Your task to perform on an android device: turn off location history Image 0: 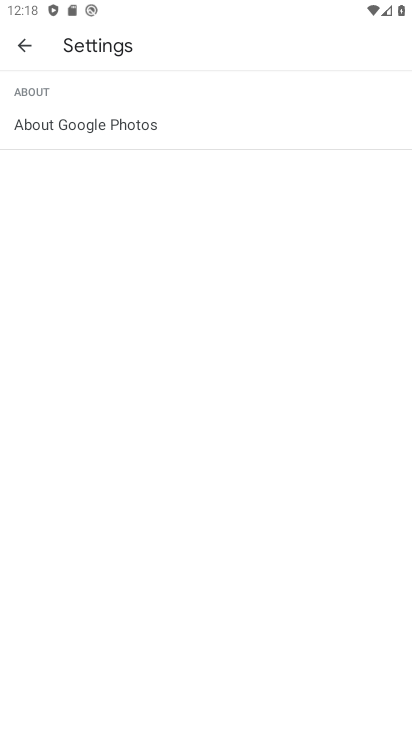
Step 0: press home button
Your task to perform on an android device: turn off location history Image 1: 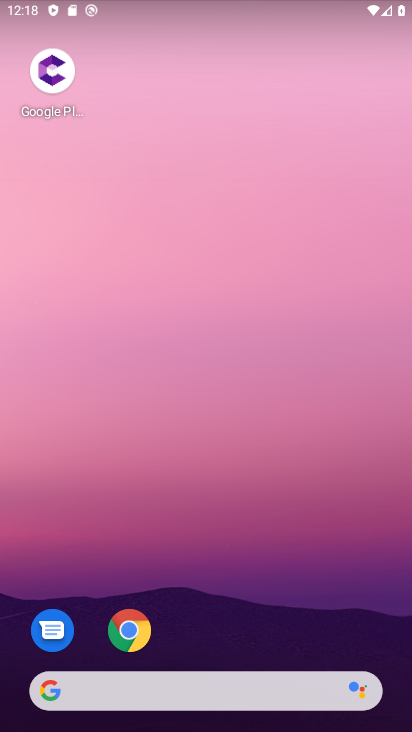
Step 1: drag from (271, 673) to (236, 137)
Your task to perform on an android device: turn off location history Image 2: 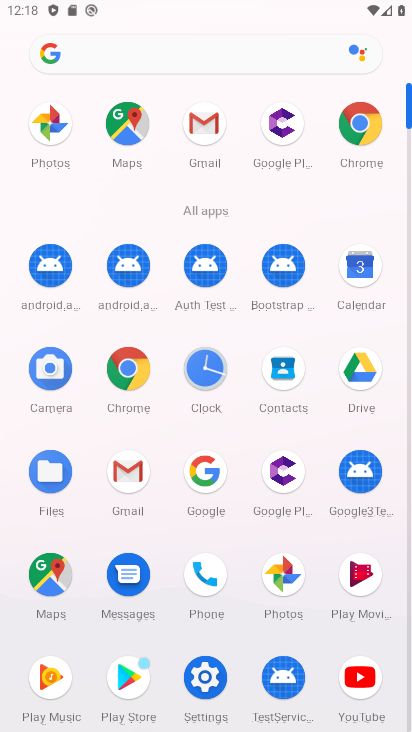
Step 2: click (213, 672)
Your task to perform on an android device: turn off location history Image 3: 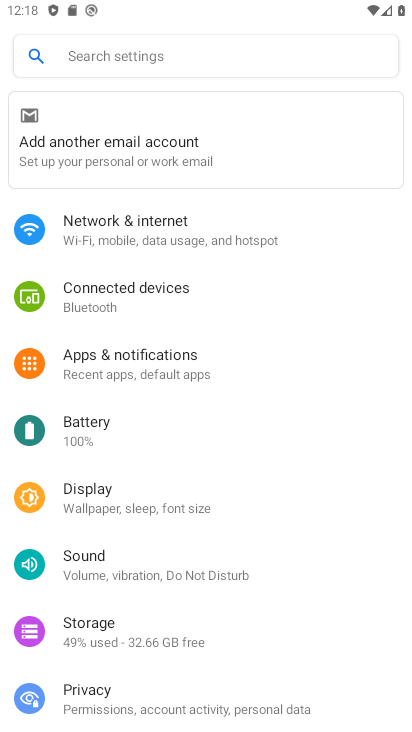
Step 3: click (184, 52)
Your task to perform on an android device: turn off location history Image 4: 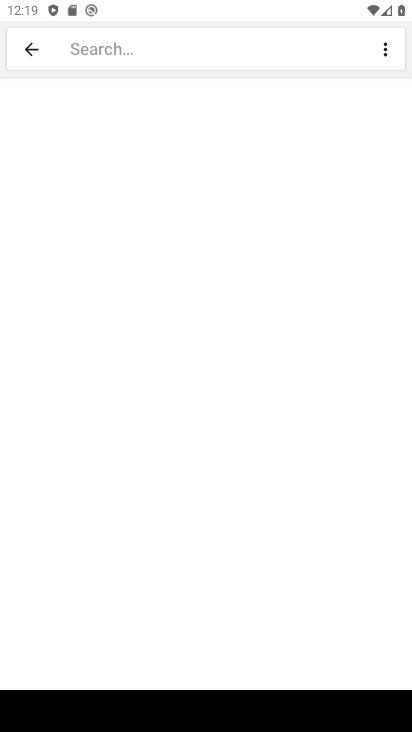
Step 4: drag from (387, 726) to (346, 659)
Your task to perform on an android device: turn off location history Image 5: 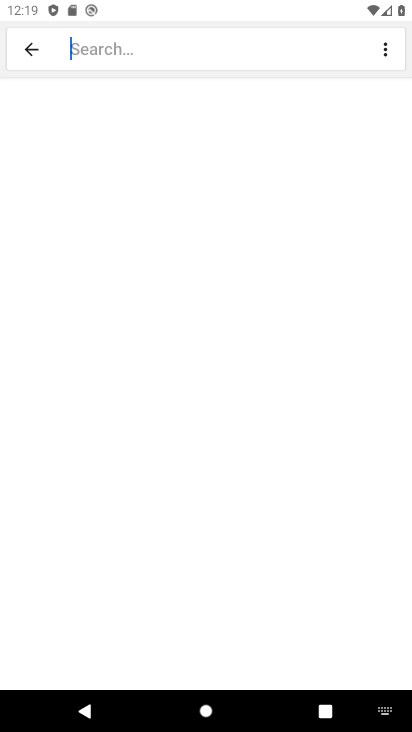
Step 5: click (395, 717)
Your task to perform on an android device: turn off location history Image 6: 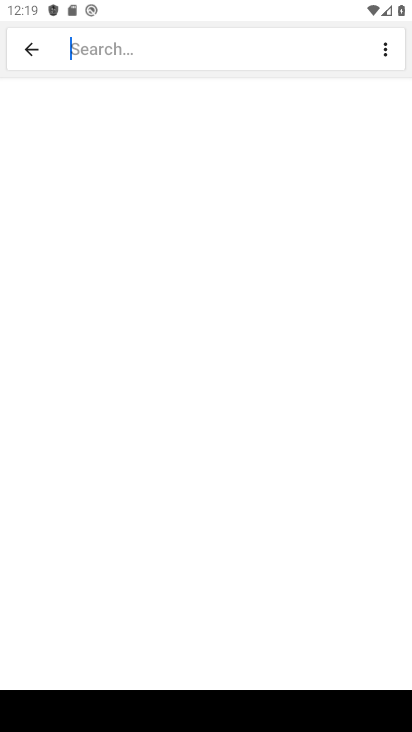
Step 6: drag from (393, 706) to (348, 550)
Your task to perform on an android device: turn off location history Image 7: 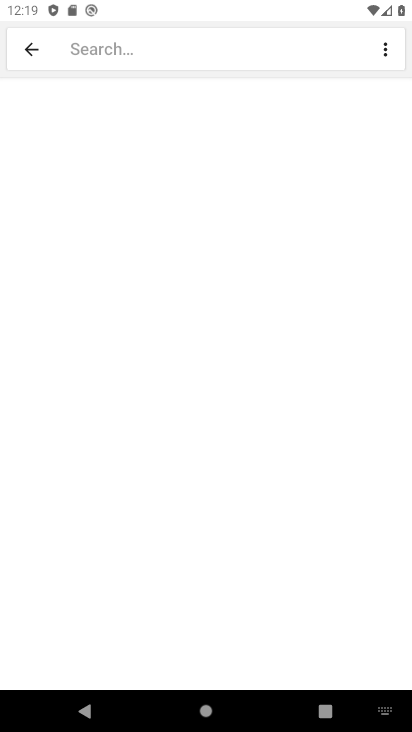
Step 7: click (393, 720)
Your task to perform on an android device: turn off location history Image 8: 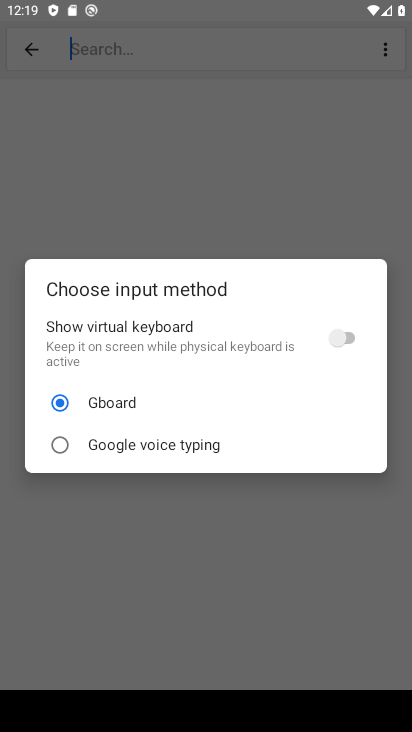
Step 8: click (338, 341)
Your task to perform on an android device: turn off location history Image 9: 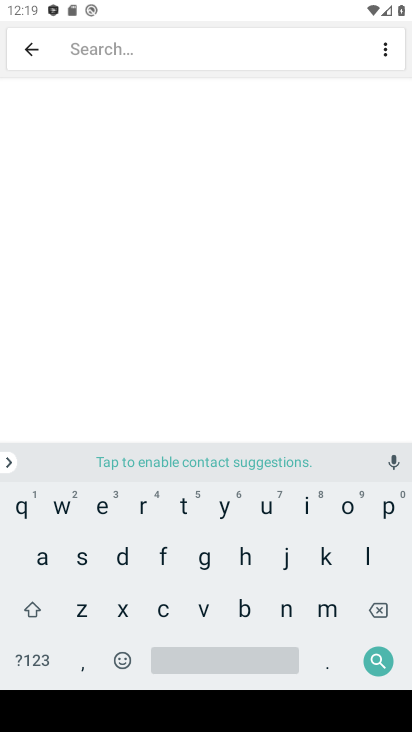
Step 9: click (360, 552)
Your task to perform on an android device: turn off location history Image 10: 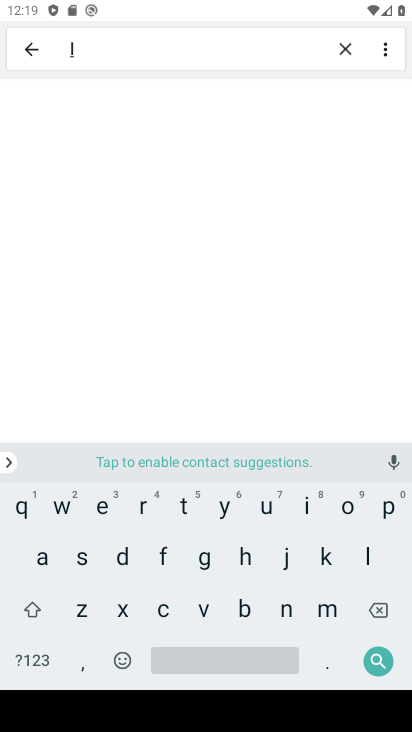
Step 10: click (345, 509)
Your task to perform on an android device: turn off location history Image 11: 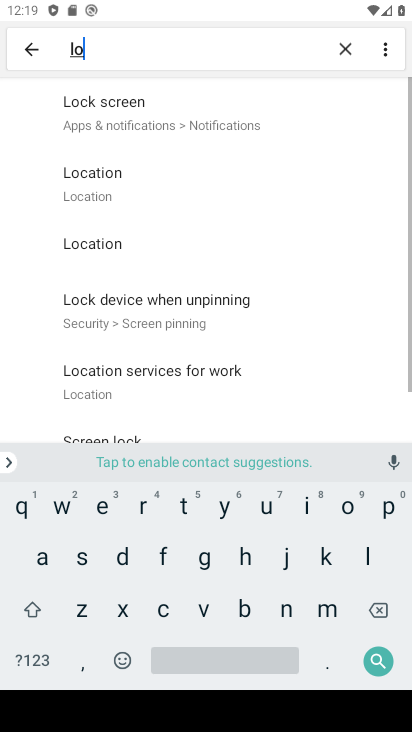
Step 11: click (139, 191)
Your task to perform on an android device: turn off location history Image 12: 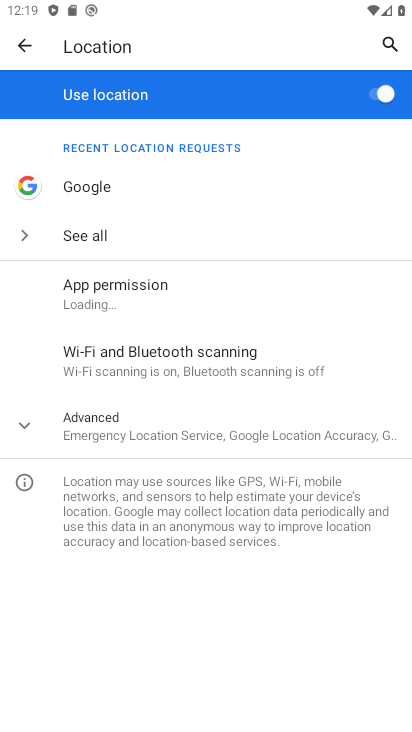
Step 12: click (357, 96)
Your task to perform on an android device: turn off location history Image 13: 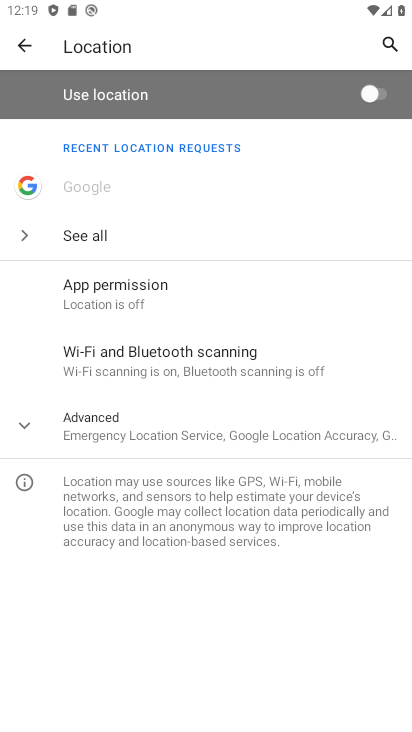
Step 13: click (364, 99)
Your task to perform on an android device: turn off location history Image 14: 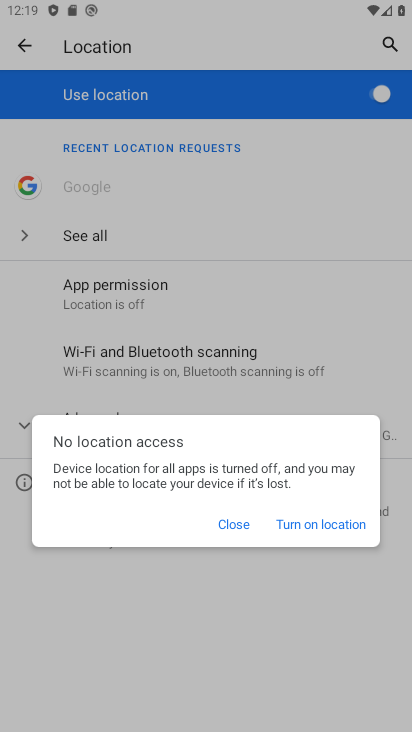
Step 14: click (29, 431)
Your task to perform on an android device: turn off location history Image 15: 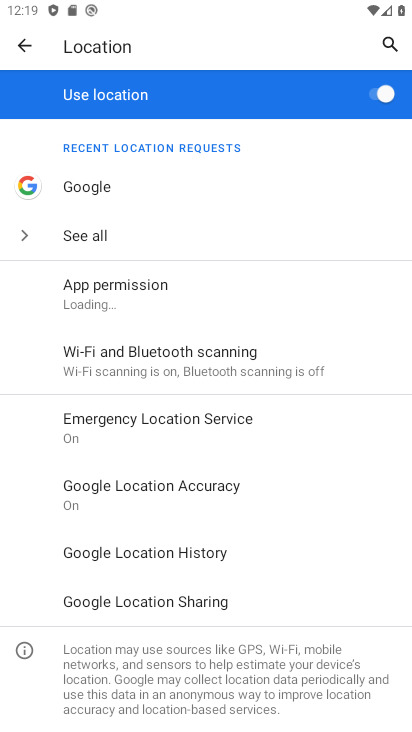
Step 15: click (163, 553)
Your task to perform on an android device: turn off location history Image 16: 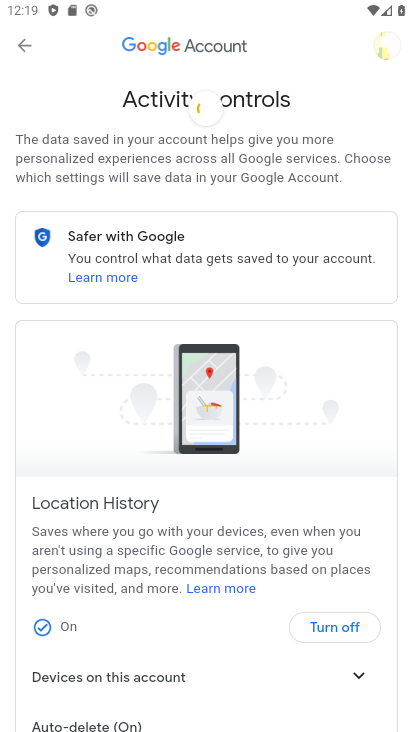
Step 16: task complete